Your task to perform on an android device: all mails in gmail Image 0: 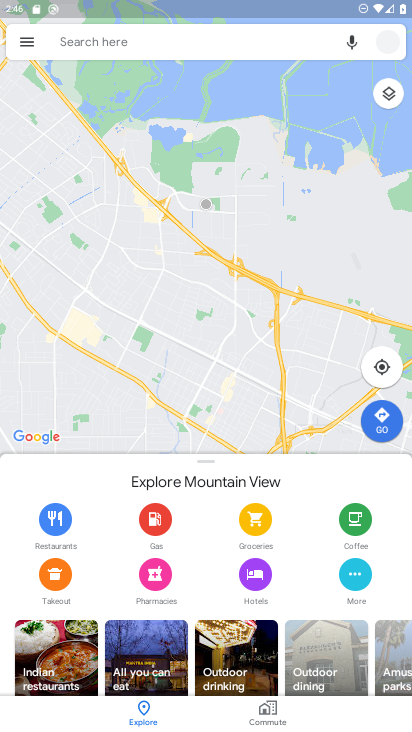
Step 0: press home button
Your task to perform on an android device: all mails in gmail Image 1: 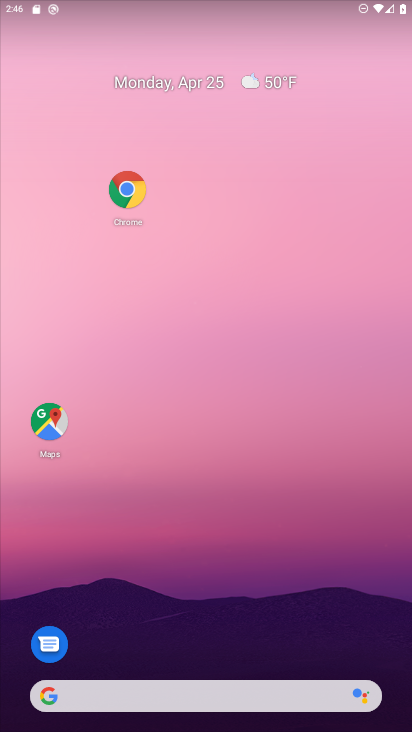
Step 1: drag from (132, 650) to (132, 193)
Your task to perform on an android device: all mails in gmail Image 2: 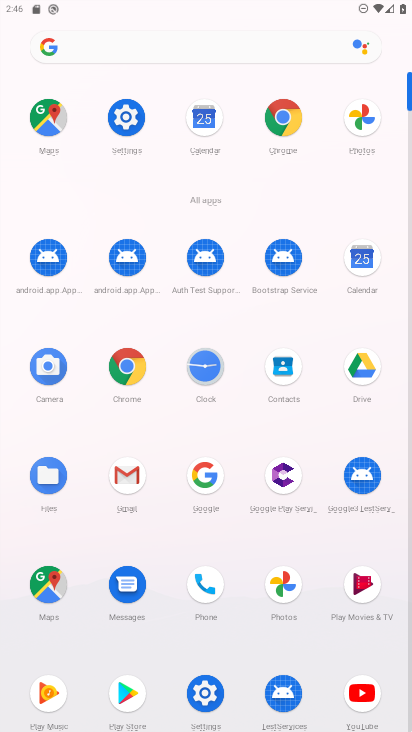
Step 2: click (130, 475)
Your task to perform on an android device: all mails in gmail Image 3: 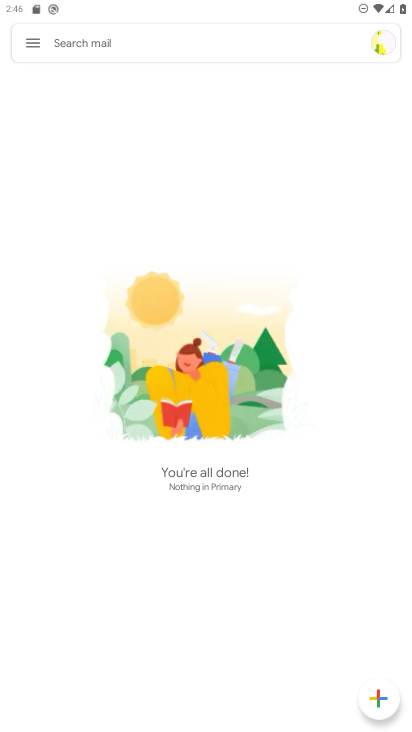
Step 3: click (25, 51)
Your task to perform on an android device: all mails in gmail Image 4: 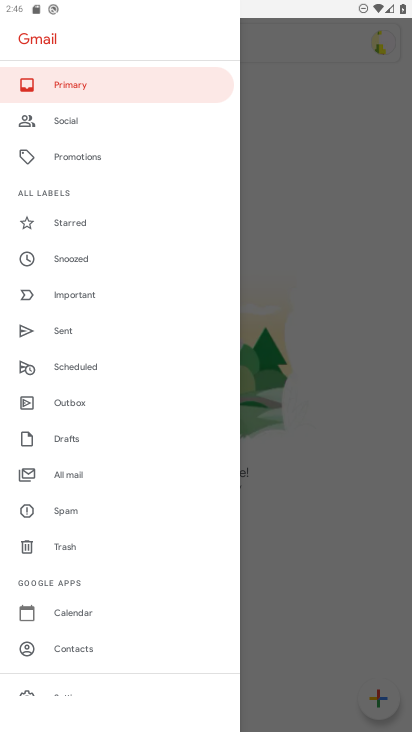
Step 4: click (55, 472)
Your task to perform on an android device: all mails in gmail Image 5: 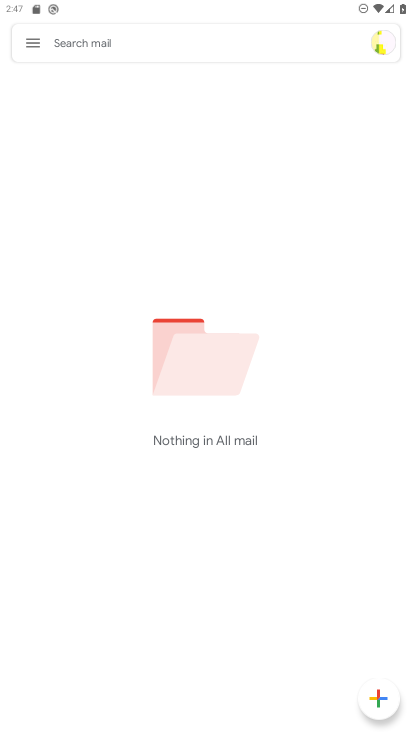
Step 5: task complete